Your task to perform on an android device: turn off javascript in the chrome app Image 0: 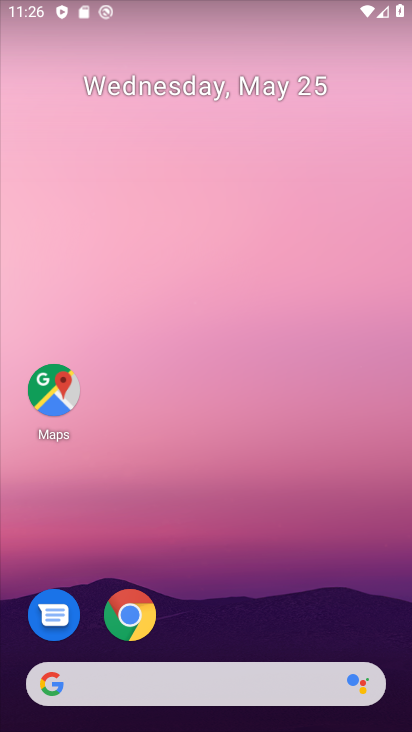
Step 0: drag from (328, 607) to (284, 31)
Your task to perform on an android device: turn off javascript in the chrome app Image 1: 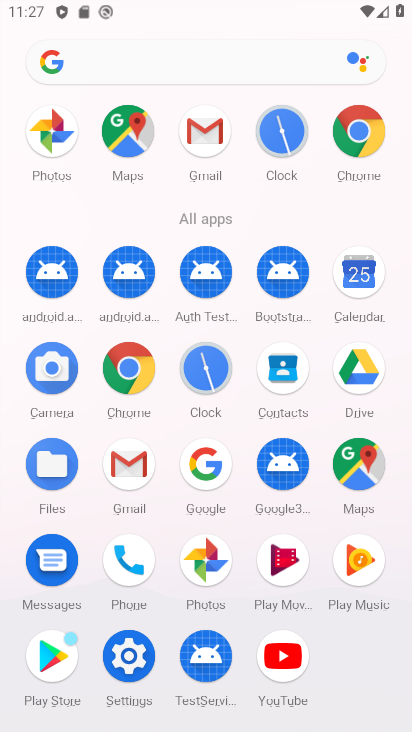
Step 1: click (126, 370)
Your task to perform on an android device: turn off javascript in the chrome app Image 2: 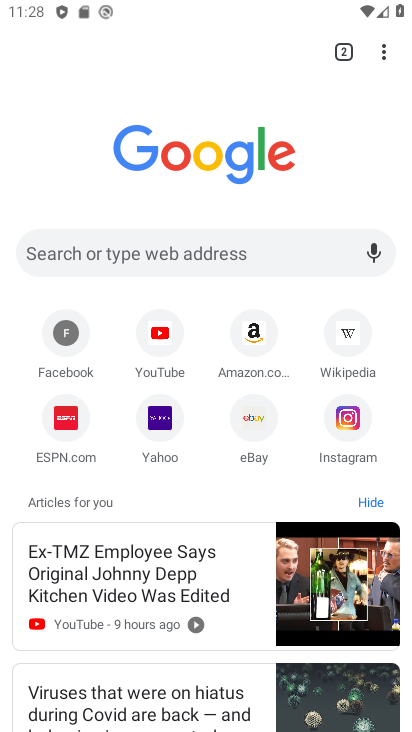
Step 2: click (382, 44)
Your task to perform on an android device: turn off javascript in the chrome app Image 3: 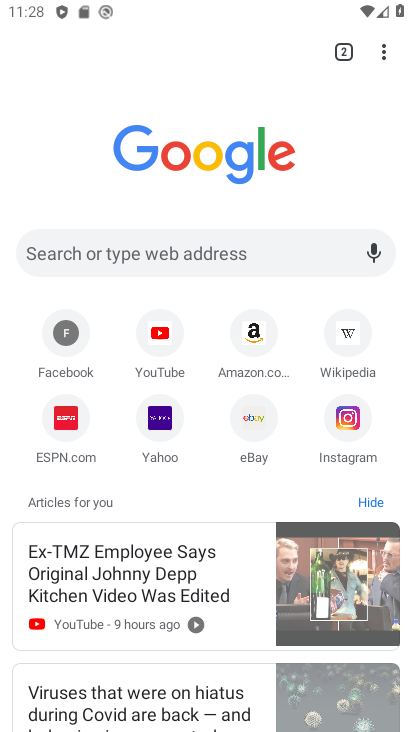
Step 3: click (382, 44)
Your task to perform on an android device: turn off javascript in the chrome app Image 4: 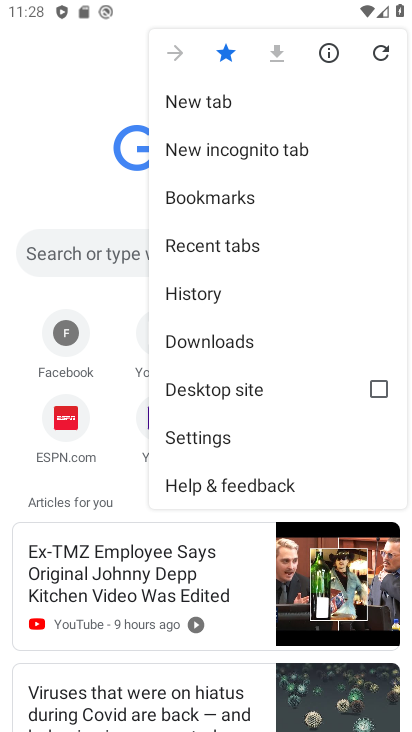
Step 4: click (229, 440)
Your task to perform on an android device: turn off javascript in the chrome app Image 5: 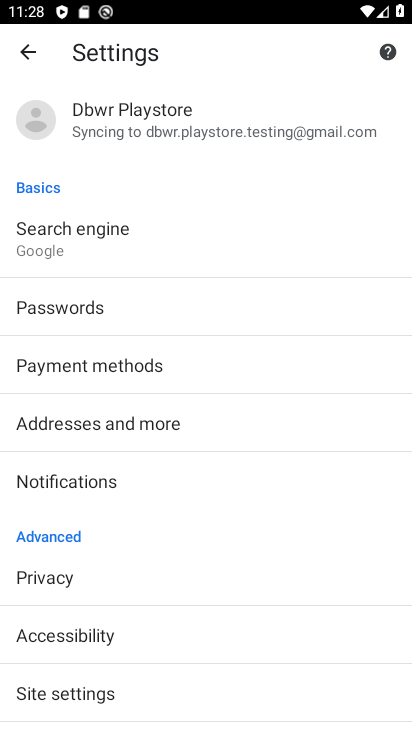
Step 5: click (126, 686)
Your task to perform on an android device: turn off javascript in the chrome app Image 6: 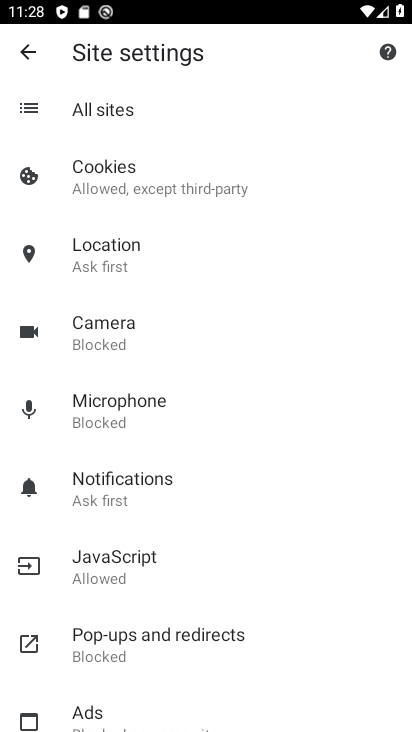
Step 6: click (132, 572)
Your task to perform on an android device: turn off javascript in the chrome app Image 7: 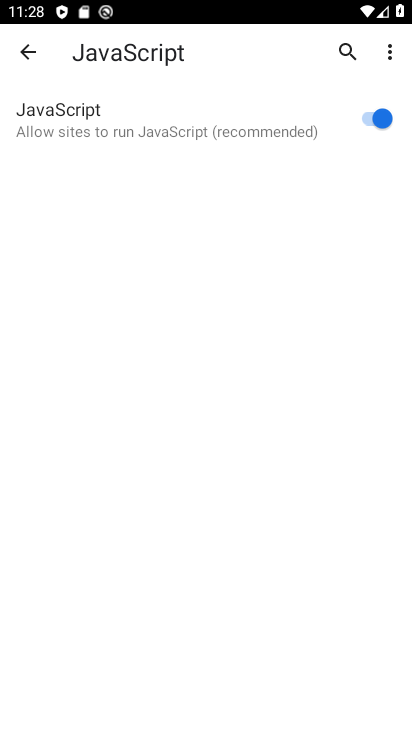
Step 7: click (332, 131)
Your task to perform on an android device: turn off javascript in the chrome app Image 8: 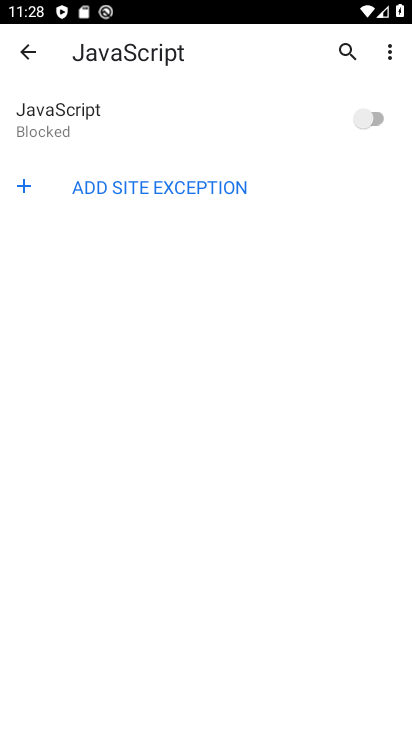
Step 8: task complete